Your task to perform on an android device: choose inbox layout in the gmail app Image 0: 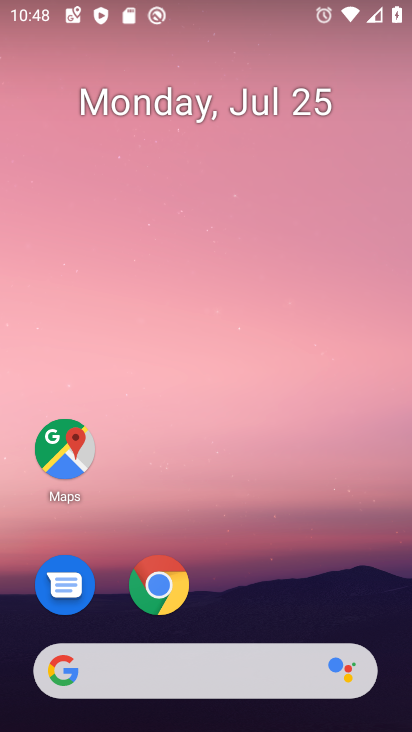
Step 0: drag from (238, 632) to (230, 125)
Your task to perform on an android device: choose inbox layout in the gmail app Image 1: 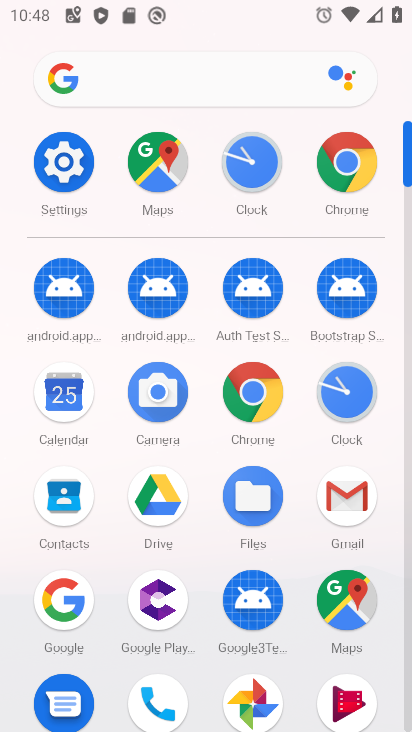
Step 1: click (336, 508)
Your task to perform on an android device: choose inbox layout in the gmail app Image 2: 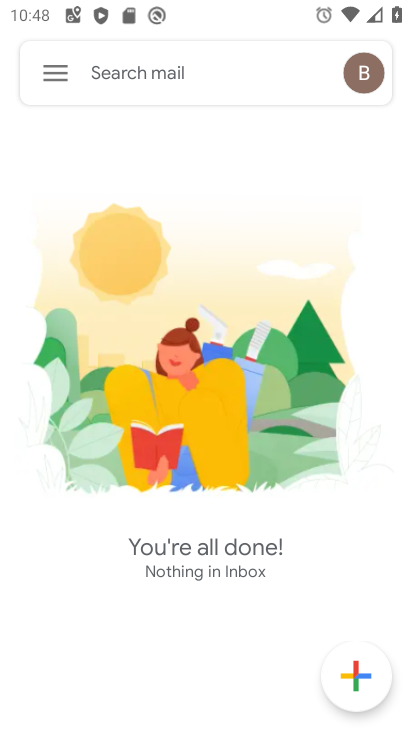
Step 2: click (57, 88)
Your task to perform on an android device: choose inbox layout in the gmail app Image 3: 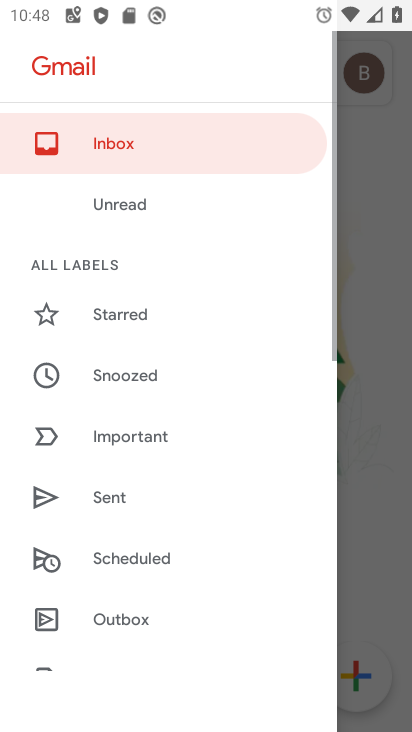
Step 3: click (181, 140)
Your task to perform on an android device: choose inbox layout in the gmail app Image 4: 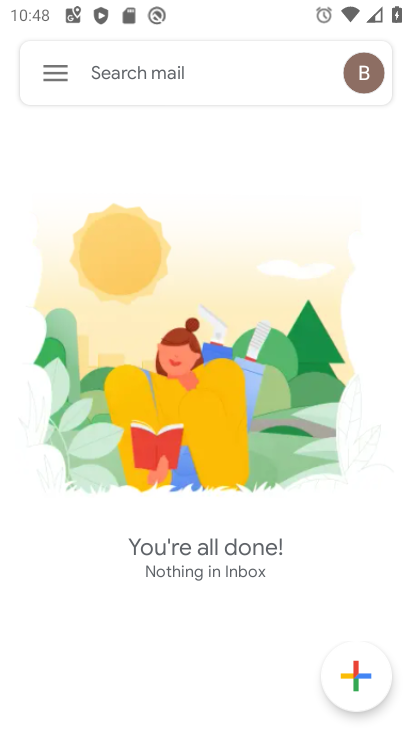
Step 4: task complete